Your task to perform on an android device: find snoozed emails in the gmail app Image 0: 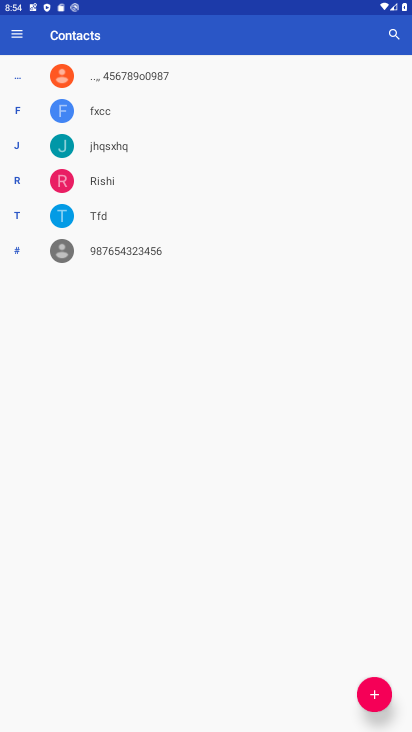
Step 0: press home button
Your task to perform on an android device: find snoozed emails in the gmail app Image 1: 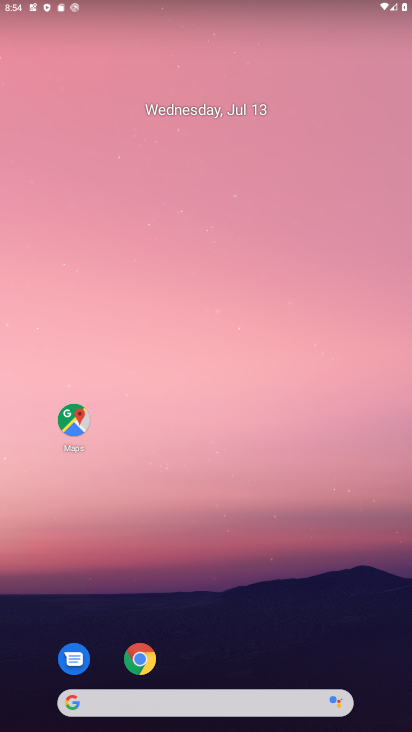
Step 1: drag from (221, 608) to (243, 216)
Your task to perform on an android device: find snoozed emails in the gmail app Image 2: 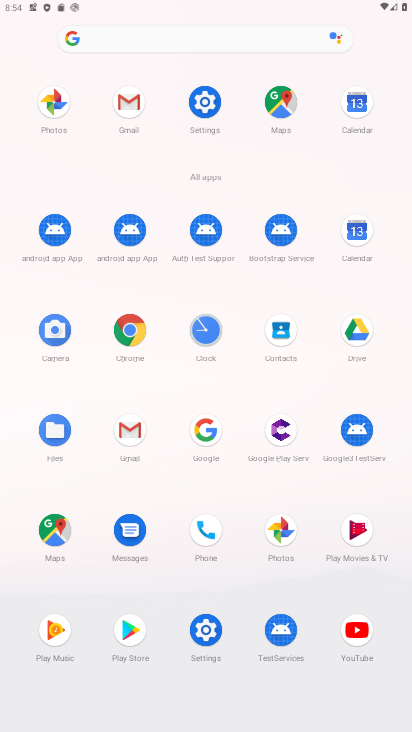
Step 2: click (123, 105)
Your task to perform on an android device: find snoozed emails in the gmail app Image 3: 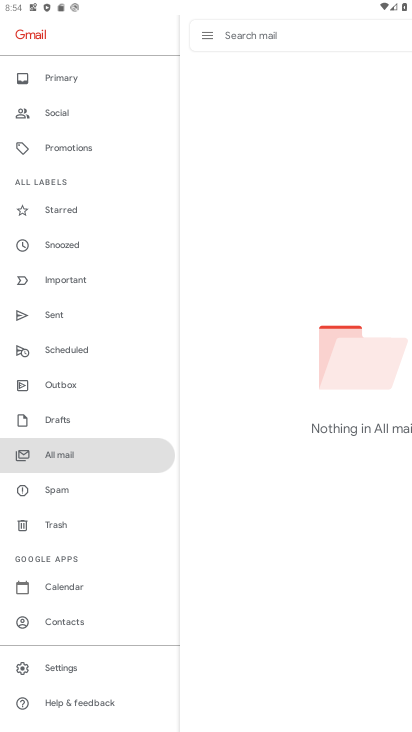
Step 3: click (63, 245)
Your task to perform on an android device: find snoozed emails in the gmail app Image 4: 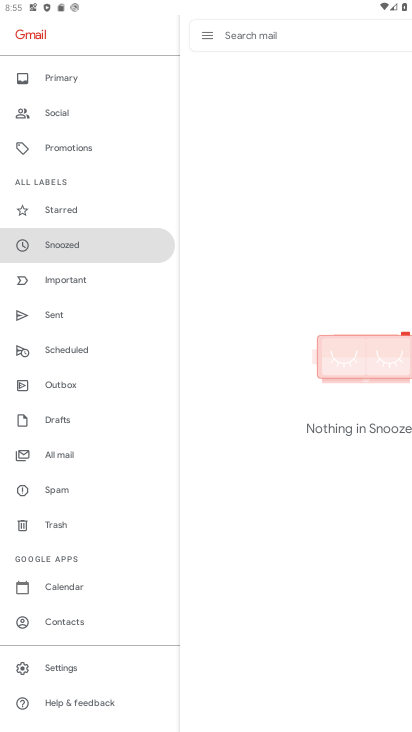
Step 4: task complete